Your task to perform on an android device: Open internet settings Image 0: 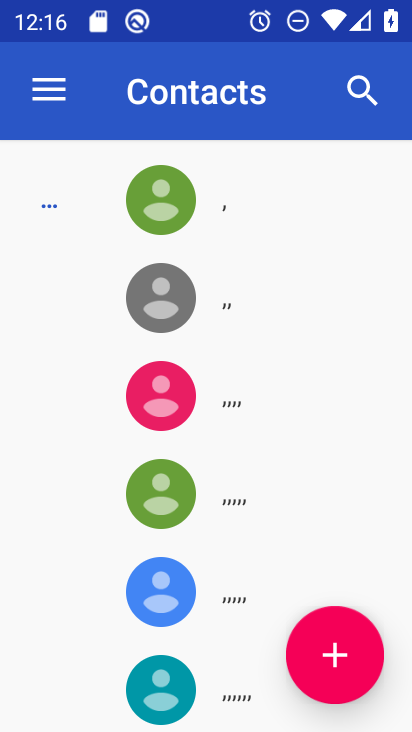
Step 0: drag from (168, 18) to (105, 714)
Your task to perform on an android device: Open internet settings Image 1: 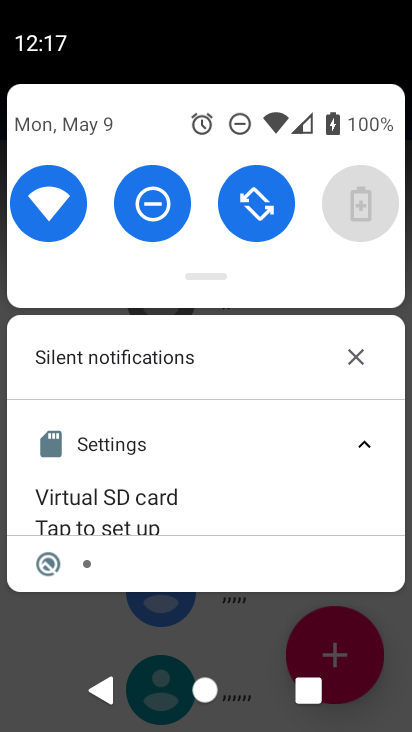
Step 1: drag from (148, 83) to (184, 556)
Your task to perform on an android device: Open internet settings Image 2: 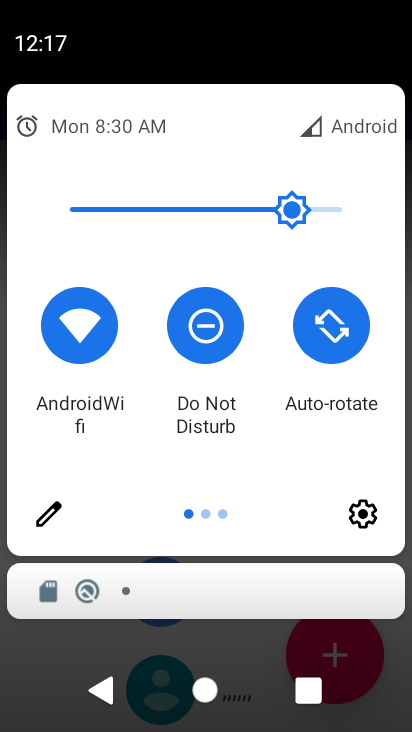
Step 2: click (362, 515)
Your task to perform on an android device: Open internet settings Image 3: 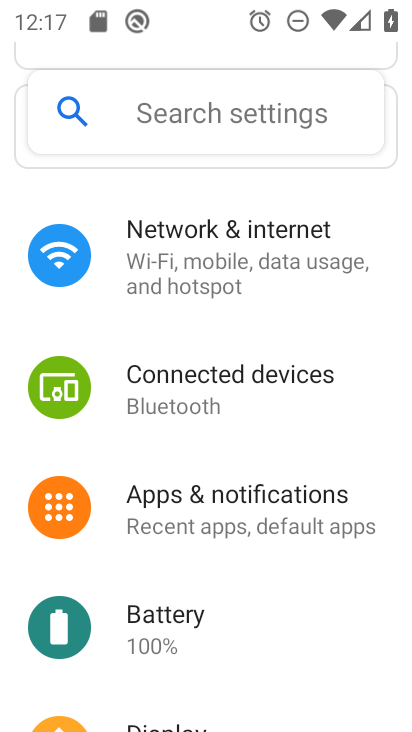
Step 3: click (166, 296)
Your task to perform on an android device: Open internet settings Image 4: 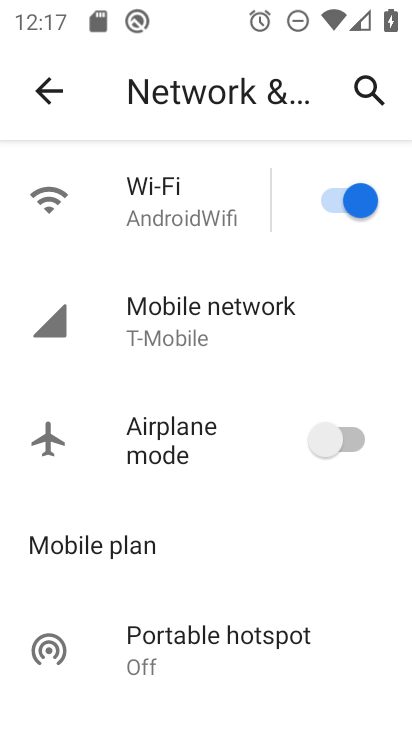
Step 4: click (269, 341)
Your task to perform on an android device: Open internet settings Image 5: 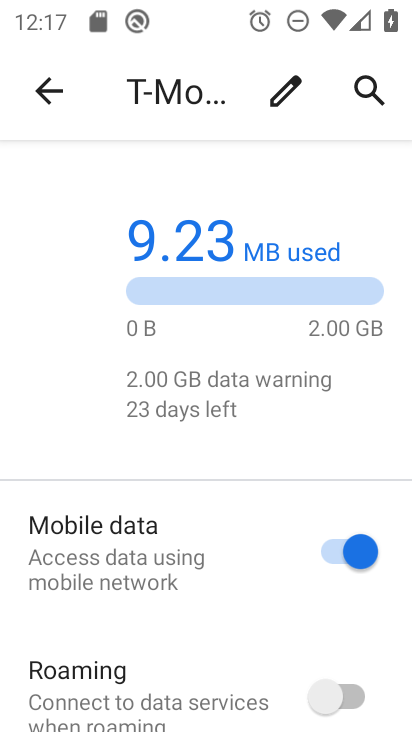
Step 5: task complete